Your task to perform on an android device: Show me productivity apps on the Play Store Image 0: 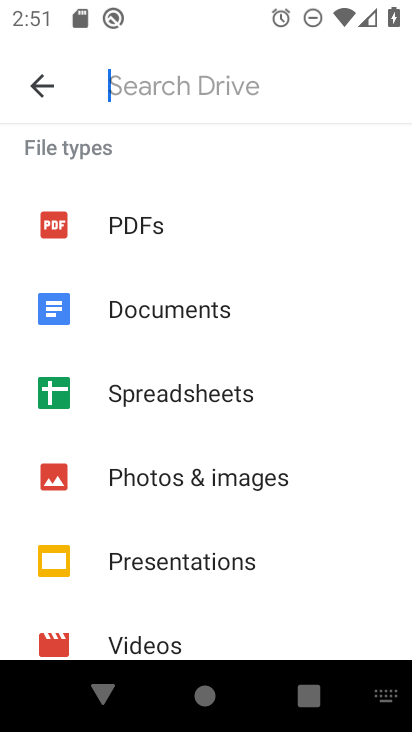
Step 0: press home button
Your task to perform on an android device: Show me productivity apps on the Play Store Image 1: 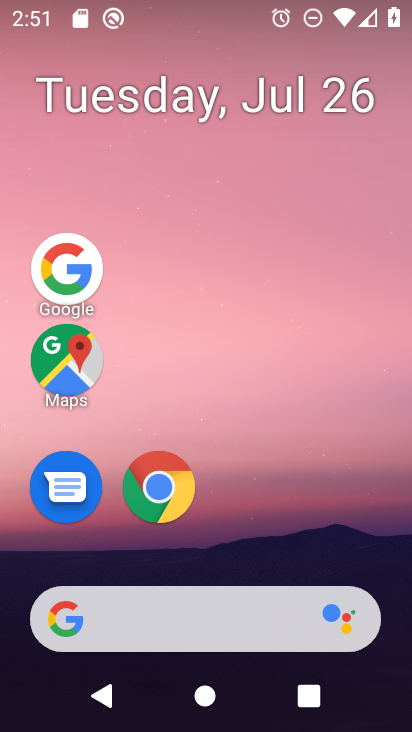
Step 1: drag from (261, 601) to (229, 150)
Your task to perform on an android device: Show me productivity apps on the Play Store Image 2: 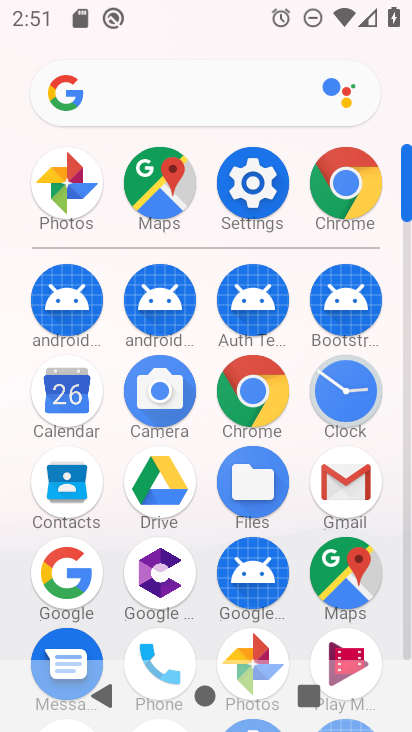
Step 2: drag from (224, 470) to (297, 42)
Your task to perform on an android device: Show me productivity apps on the Play Store Image 3: 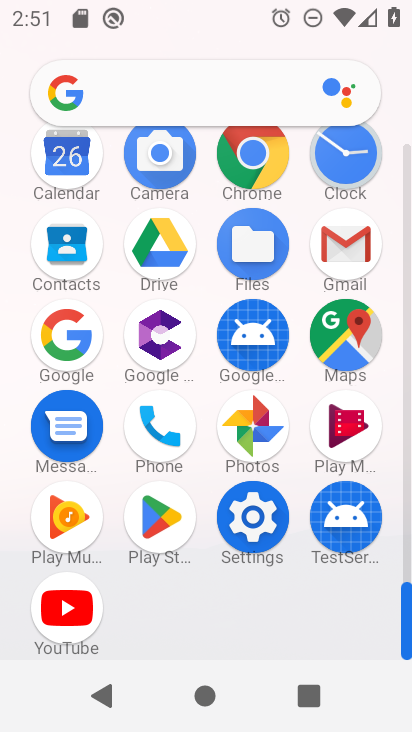
Step 3: click (170, 535)
Your task to perform on an android device: Show me productivity apps on the Play Store Image 4: 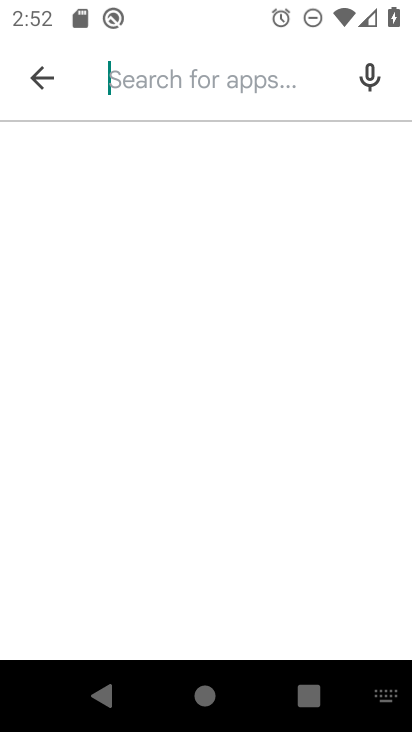
Step 4: type "productivity"
Your task to perform on an android device: Show me productivity apps on the Play Store Image 5: 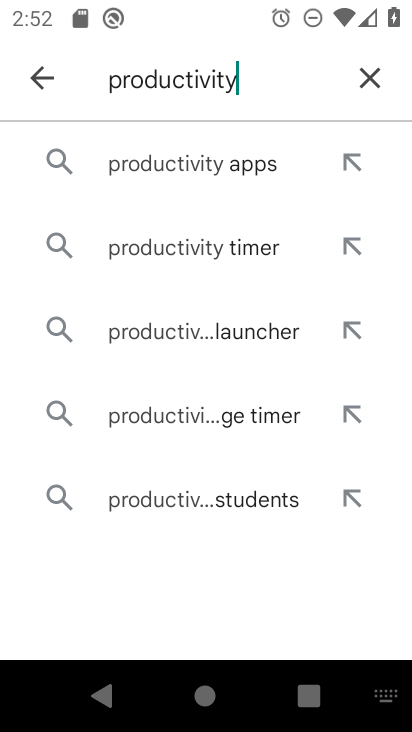
Step 5: click (255, 172)
Your task to perform on an android device: Show me productivity apps on the Play Store Image 6: 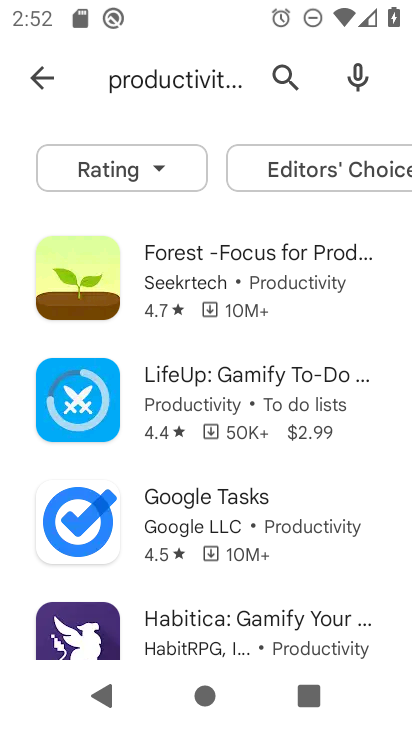
Step 6: task complete